Your task to perform on an android device: Open the map Image 0: 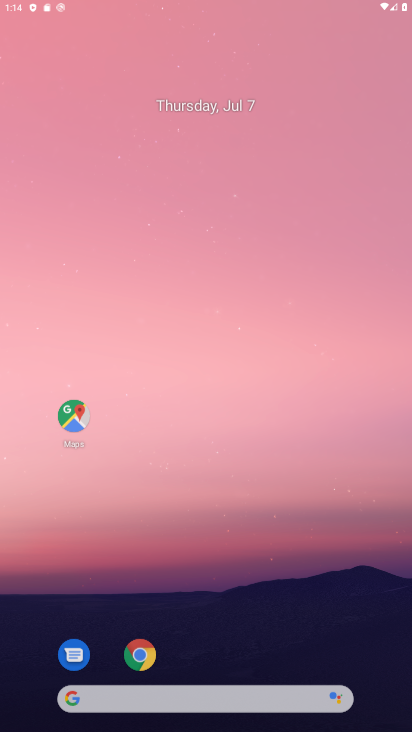
Step 0: press home button
Your task to perform on an android device: Open the map Image 1: 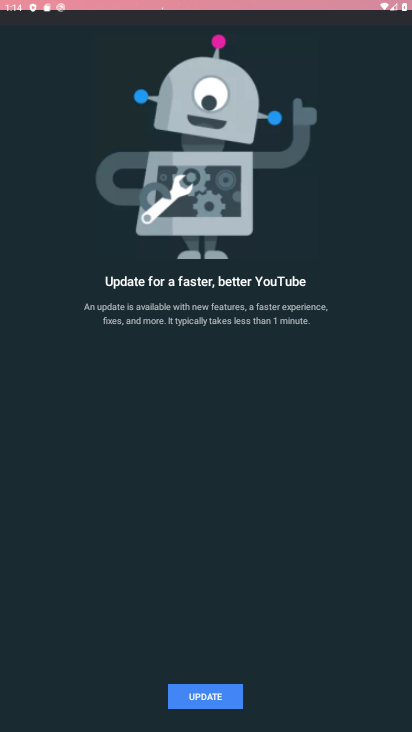
Step 1: press home button
Your task to perform on an android device: Open the map Image 2: 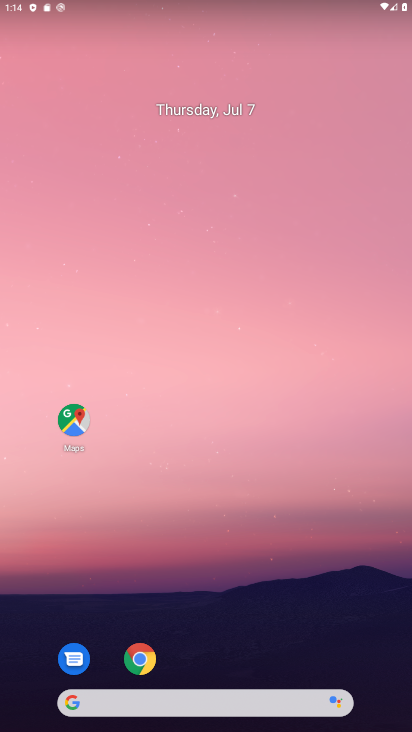
Step 2: click (66, 417)
Your task to perform on an android device: Open the map Image 3: 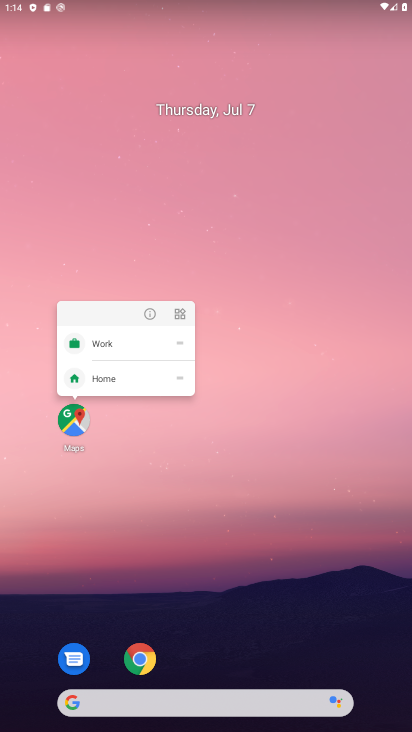
Step 3: click (72, 411)
Your task to perform on an android device: Open the map Image 4: 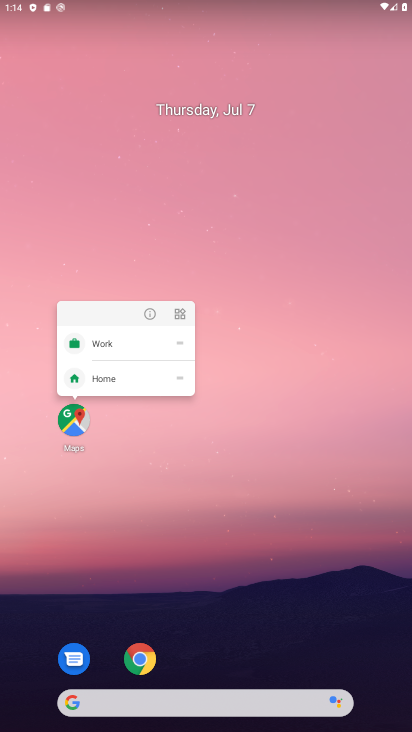
Step 4: click (73, 417)
Your task to perform on an android device: Open the map Image 5: 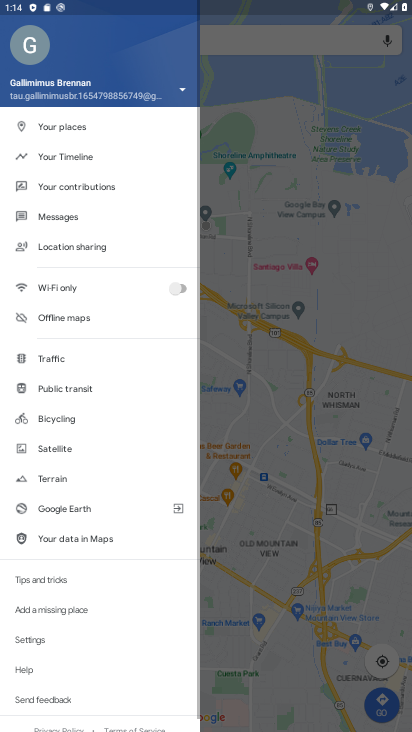
Step 5: drag from (71, 561) to (83, 228)
Your task to perform on an android device: Open the map Image 6: 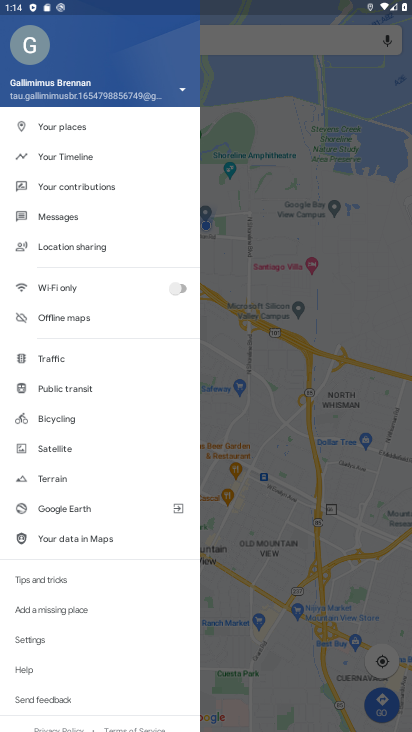
Step 6: drag from (60, 213) to (2, 674)
Your task to perform on an android device: Open the map Image 7: 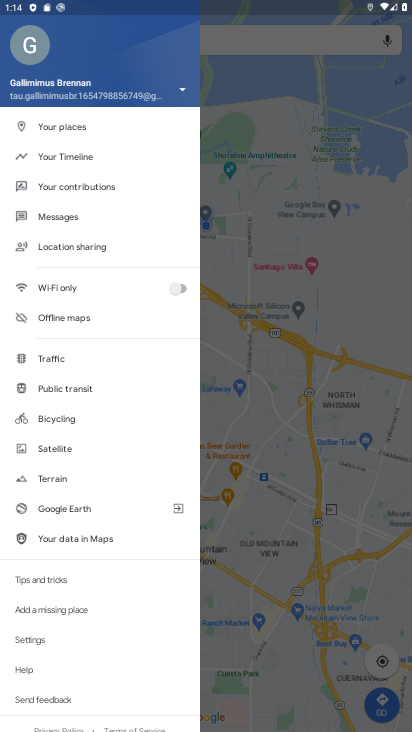
Step 7: click (296, 523)
Your task to perform on an android device: Open the map Image 8: 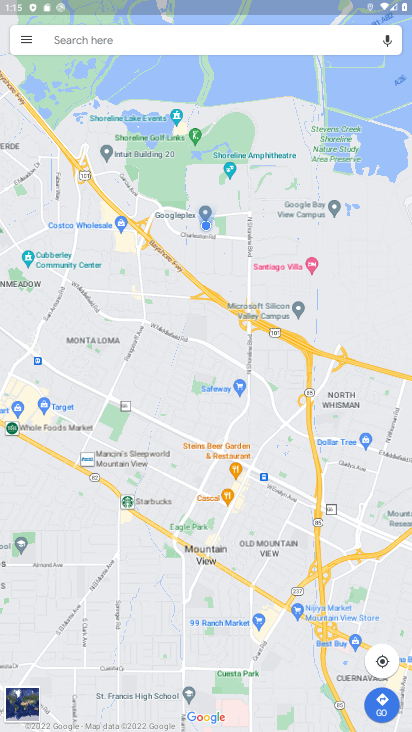
Step 8: click (384, 699)
Your task to perform on an android device: Open the map Image 9: 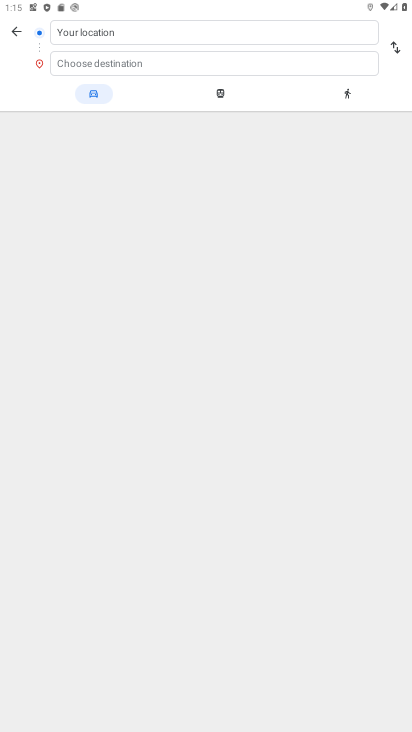
Step 9: task complete